Your task to perform on an android device: Open Youtube and go to the subscriptions tab Image 0: 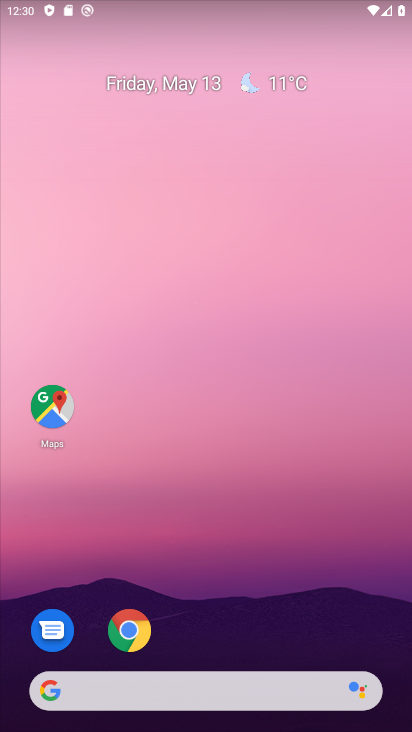
Step 0: drag from (364, 589) to (378, 10)
Your task to perform on an android device: Open Youtube and go to the subscriptions tab Image 1: 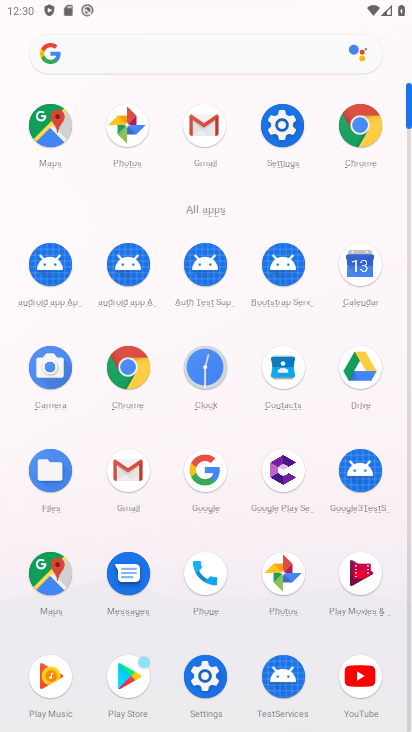
Step 1: click (411, 554)
Your task to perform on an android device: Open Youtube and go to the subscriptions tab Image 2: 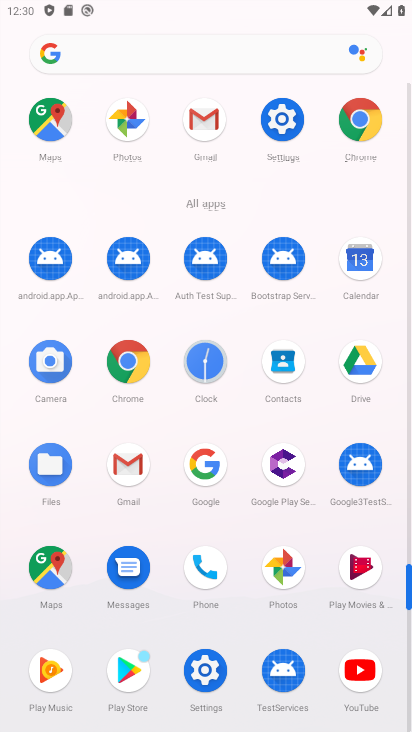
Step 2: click (363, 663)
Your task to perform on an android device: Open Youtube and go to the subscriptions tab Image 3: 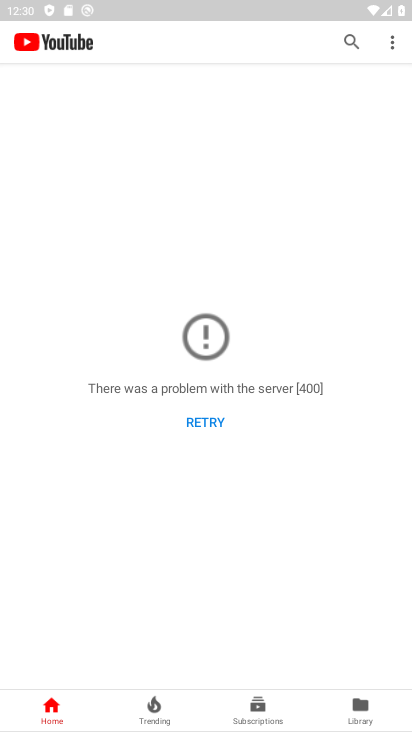
Step 3: click (254, 716)
Your task to perform on an android device: Open Youtube and go to the subscriptions tab Image 4: 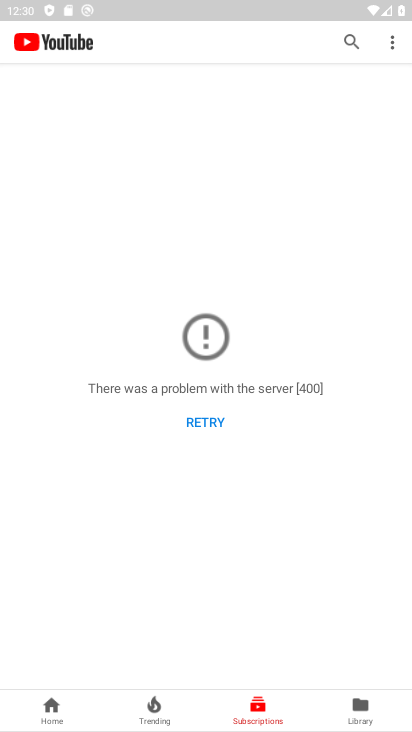
Step 4: click (199, 427)
Your task to perform on an android device: Open Youtube and go to the subscriptions tab Image 5: 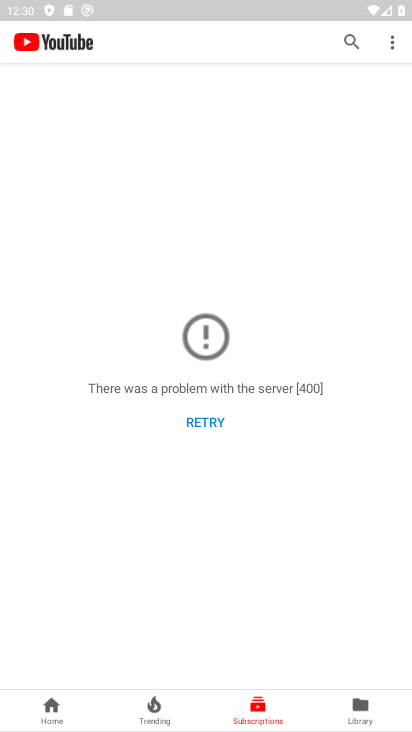
Step 5: click (257, 713)
Your task to perform on an android device: Open Youtube and go to the subscriptions tab Image 6: 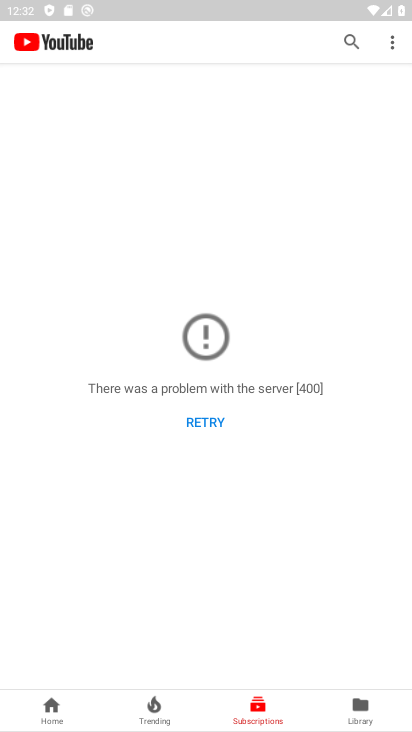
Step 6: task complete